Your task to perform on an android device: change timer sound Image 0: 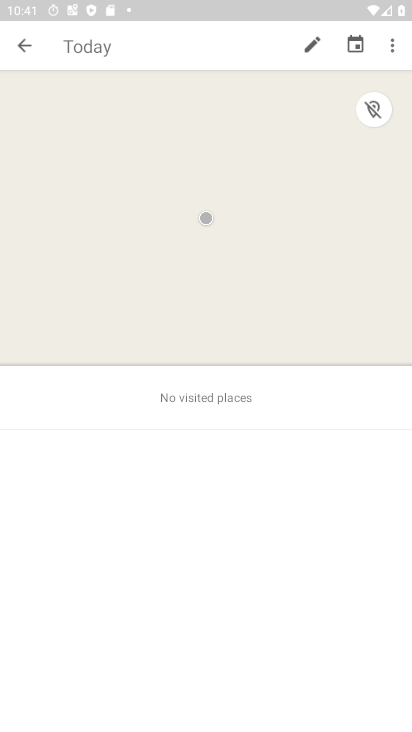
Step 0: press home button
Your task to perform on an android device: change timer sound Image 1: 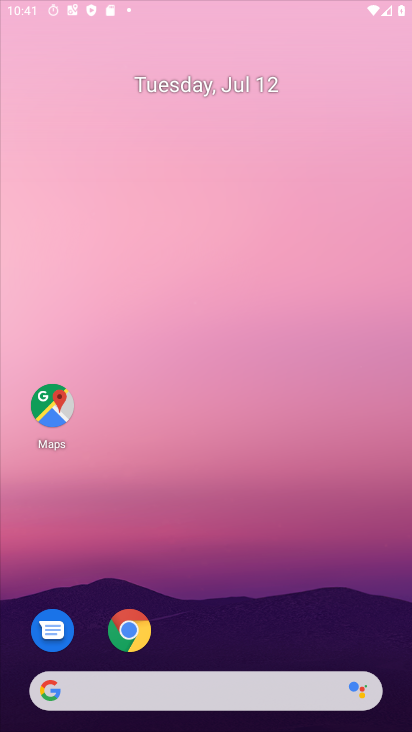
Step 1: drag from (231, 560) to (272, 226)
Your task to perform on an android device: change timer sound Image 2: 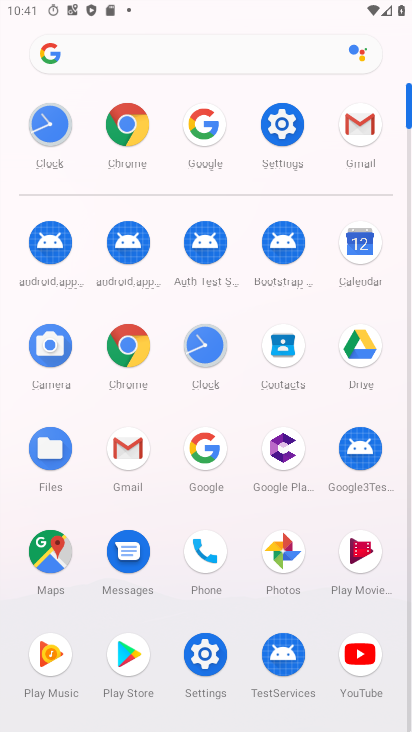
Step 2: click (207, 346)
Your task to perform on an android device: change timer sound Image 3: 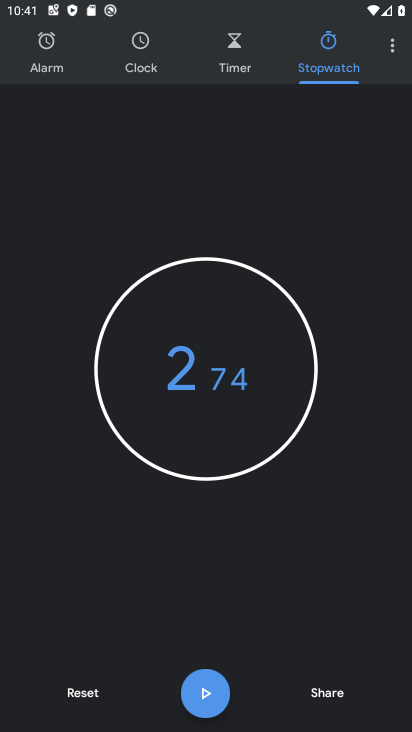
Step 3: click (377, 45)
Your task to perform on an android device: change timer sound Image 4: 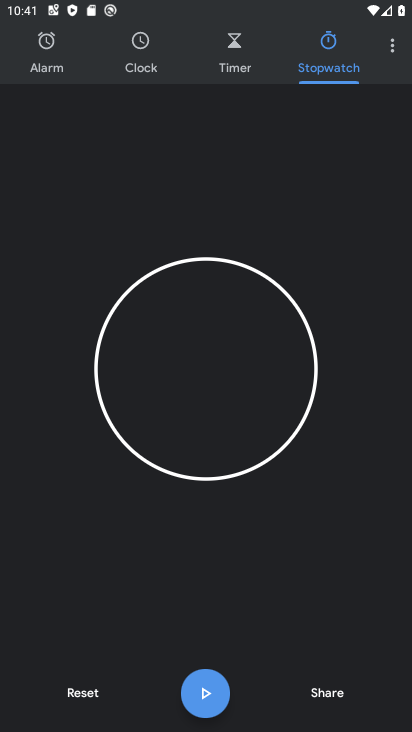
Step 4: click (382, 39)
Your task to perform on an android device: change timer sound Image 5: 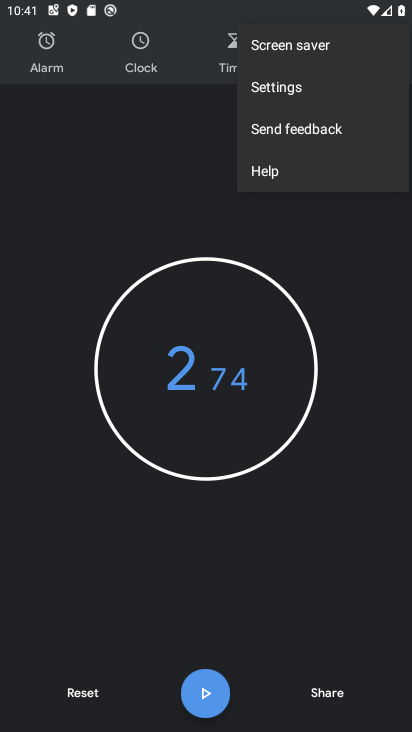
Step 5: click (308, 81)
Your task to perform on an android device: change timer sound Image 6: 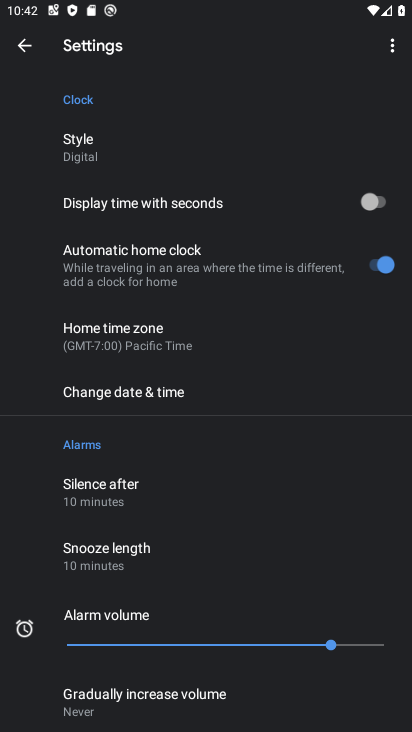
Step 6: drag from (159, 562) to (180, 145)
Your task to perform on an android device: change timer sound Image 7: 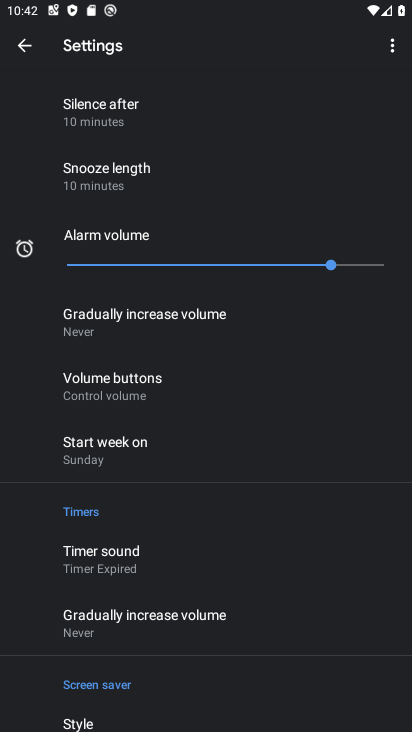
Step 7: click (115, 555)
Your task to perform on an android device: change timer sound Image 8: 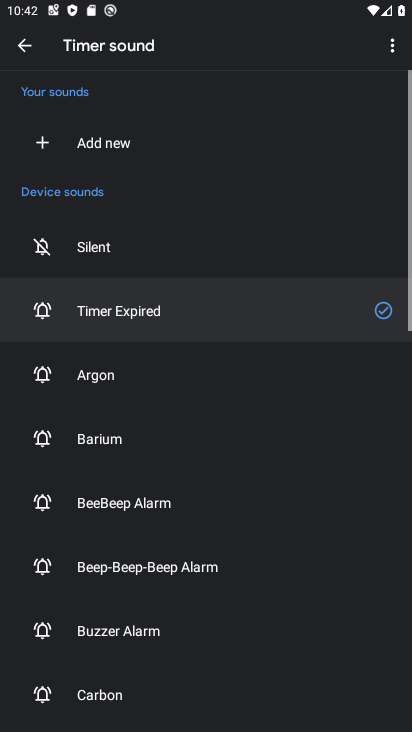
Step 8: click (115, 247)
Your task to perform on an android device: change timer sound Image 9: 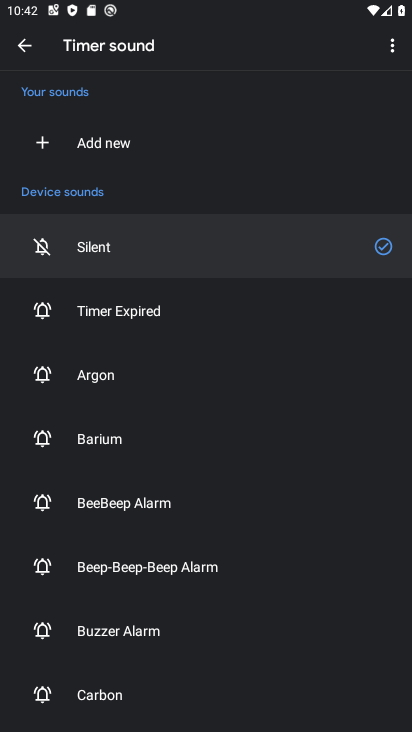
Step 9: task complete